Your task to perform on an android device: What's the news this month? Image 0: 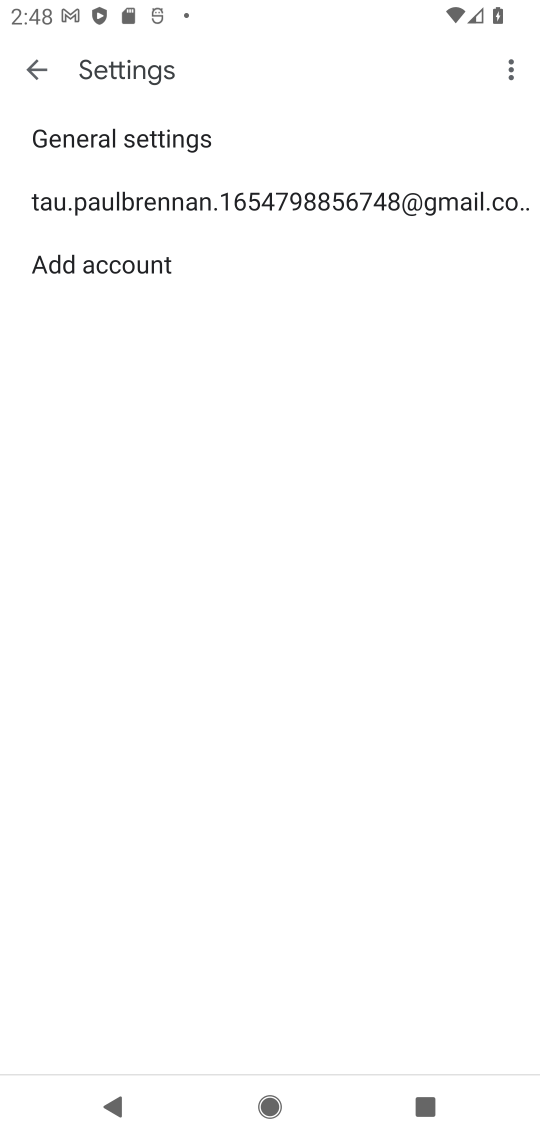
Step 0: press home button
Your task to perform on an android device: What's the news this month? Image 1: 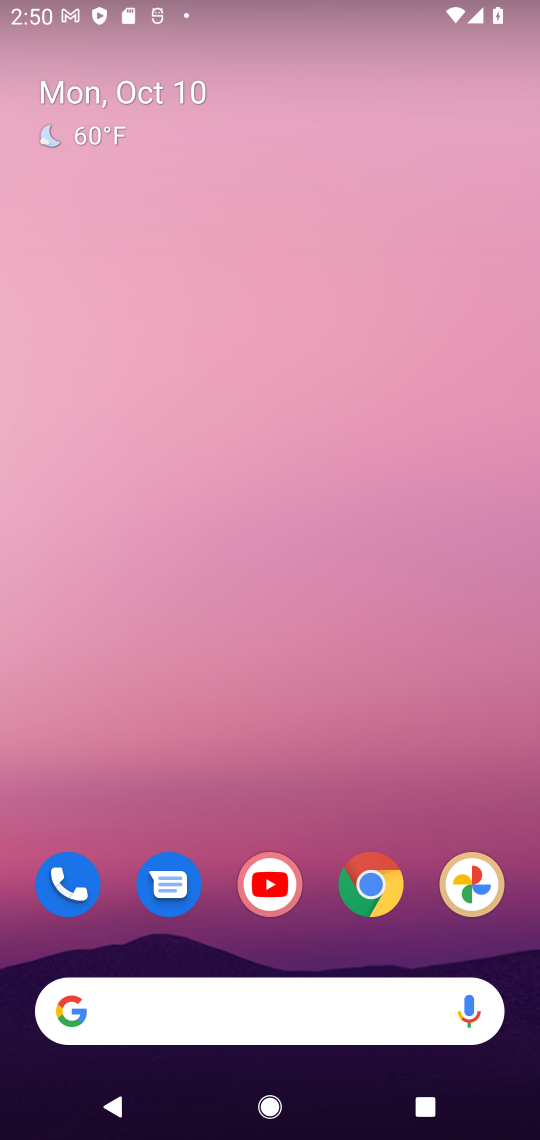
Step 1: click (387, 882)
Your task to perform on an android device: What's the news this month? Image 2: 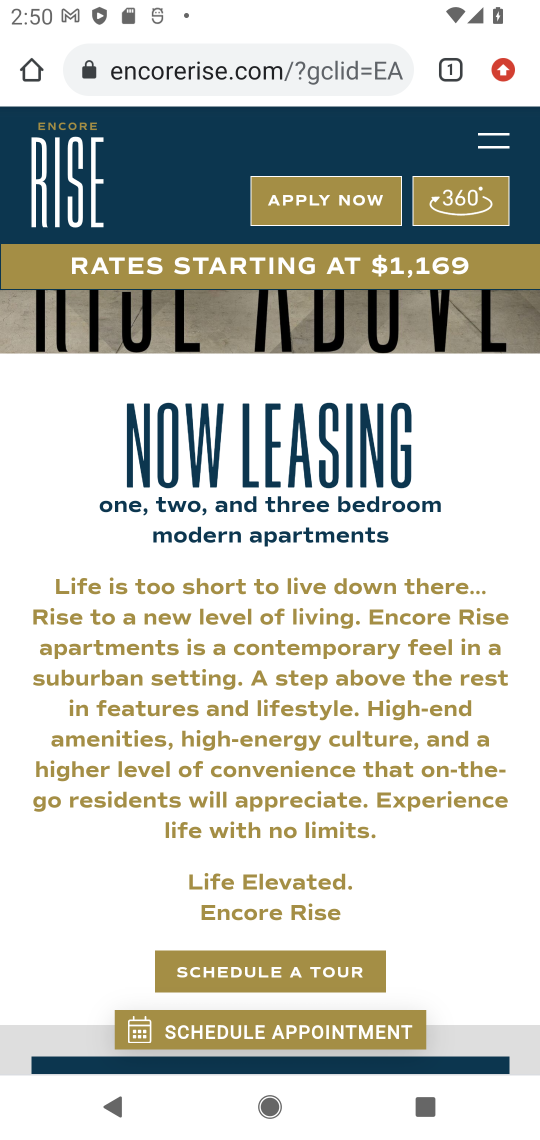
Step 2: click (174, 61)
Your task to perform on an android device: What's the news this month? Image 3: 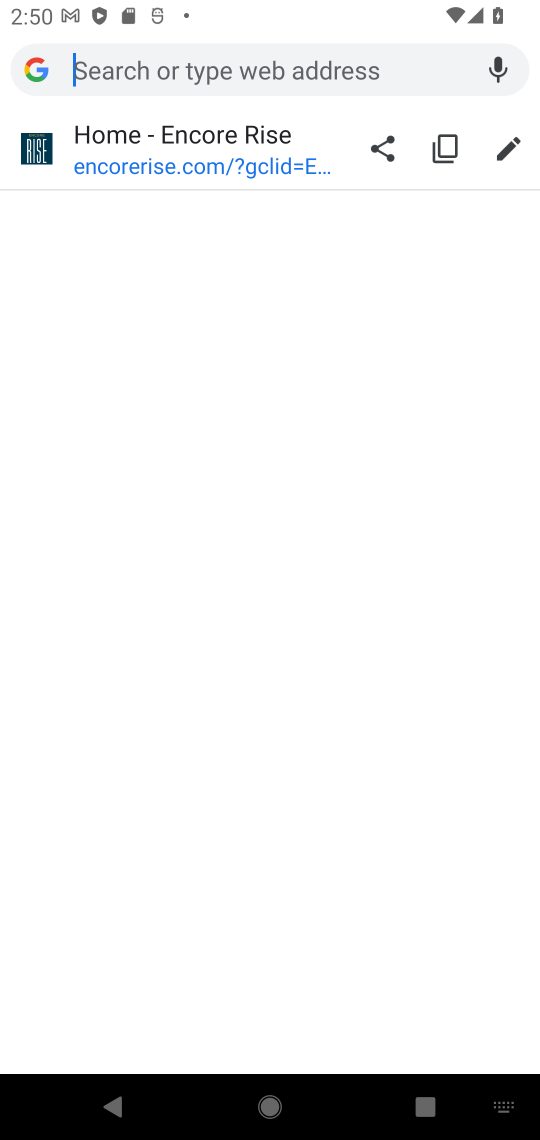
Step 3: type "the news this month"
Your task to perform on an android device: What's the news this month? Image 4: 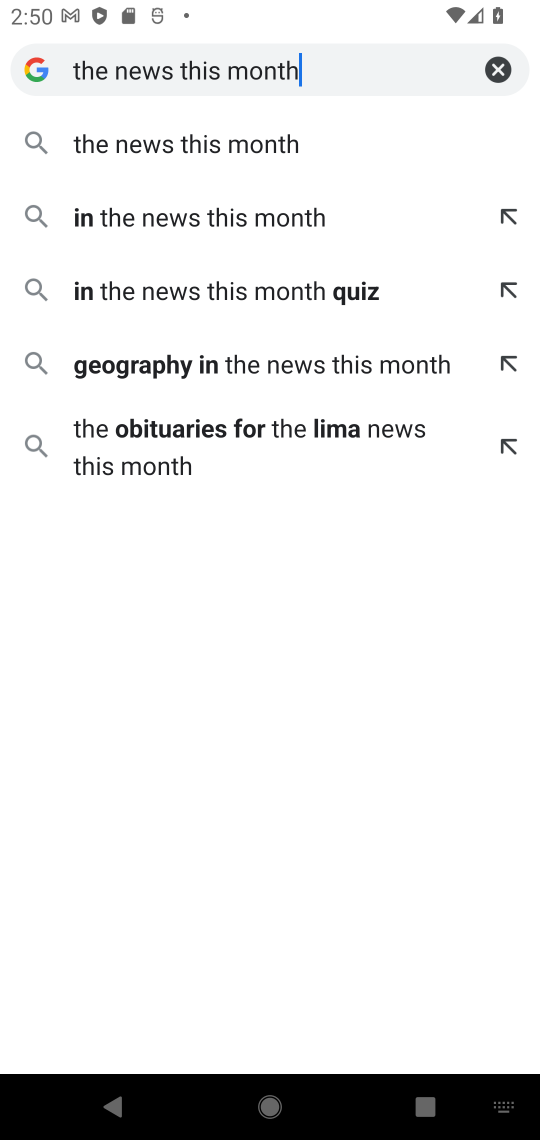
Step 4: click (159, 148)
Your task to perform on an android device: What's the news this month? Image 5: 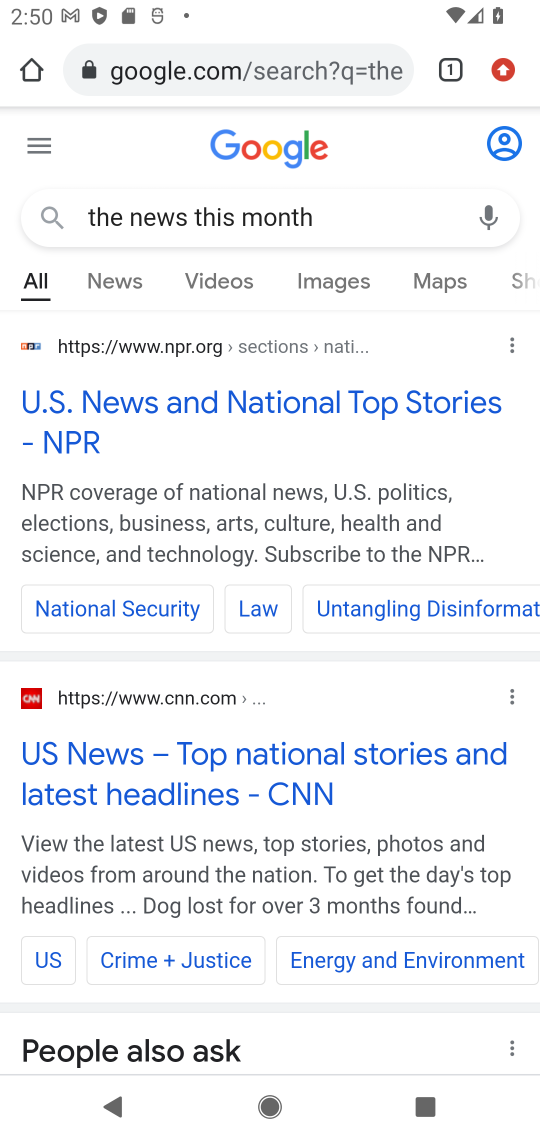
Step 5: click (271, 414)
Your task to perform on an android device: What's the news this month? Image 6: 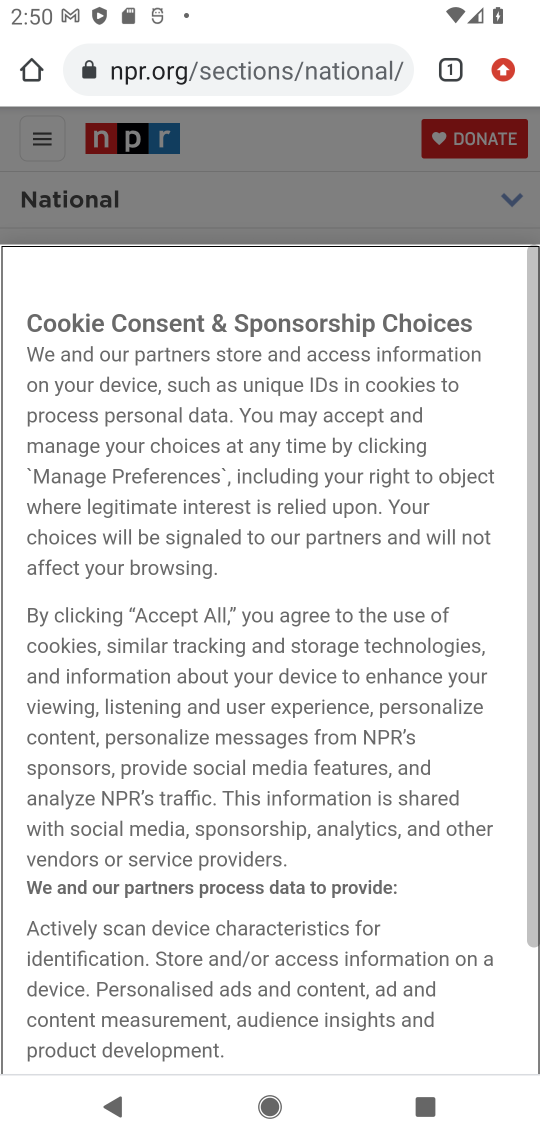
Step 6: task complete